Your task to perform on an android device: open app "Grab" Image 0: 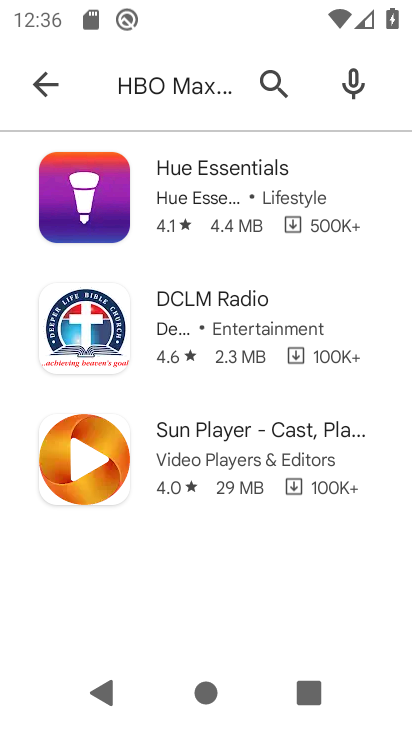
Step 0: click (157, 81)
Your task to perform on an android device: open app "Grab" Image 1: 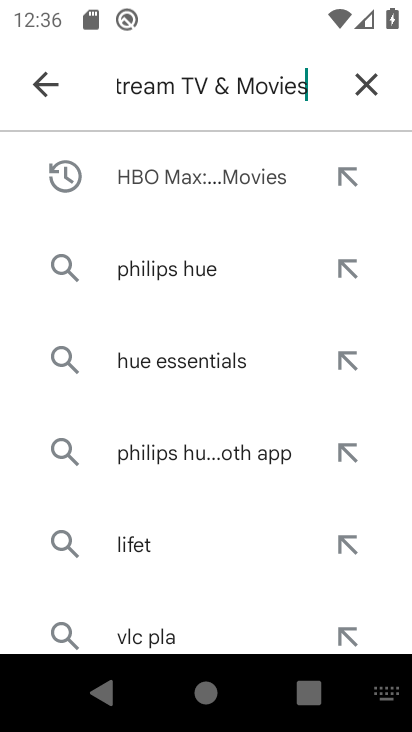
Step 1: click (368, 93)
Your task to perform on an android device: open app "Grab" Image 2: 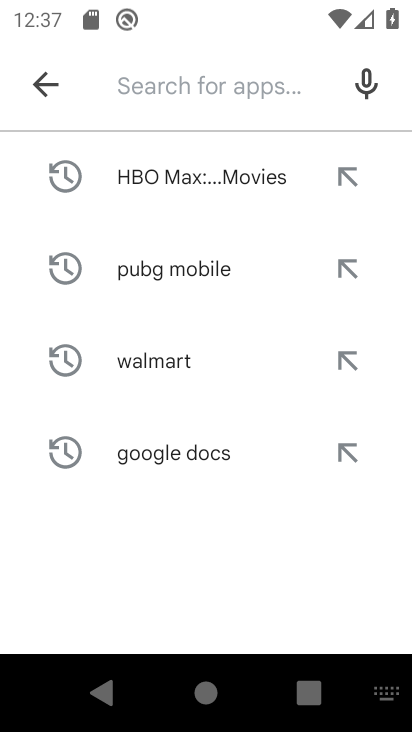
Step 2: type "grab"
Your task to perform on an android device: open app "Grab" Image 3: 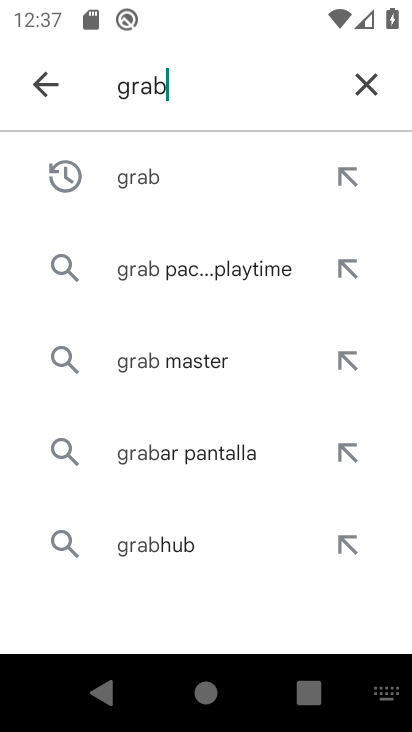
Step 3: click (147, 177)
Your task to perform on an android device: open app "Grab" Image 4: 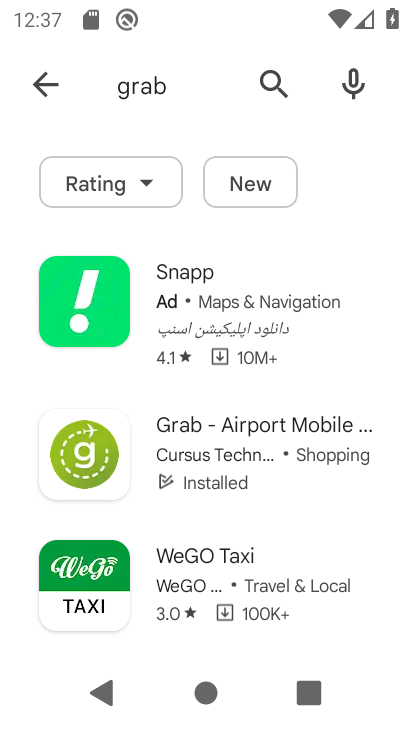
Step 4: click (215, 439)
Your task to perform on an android device: open app "Grab" Image 5: 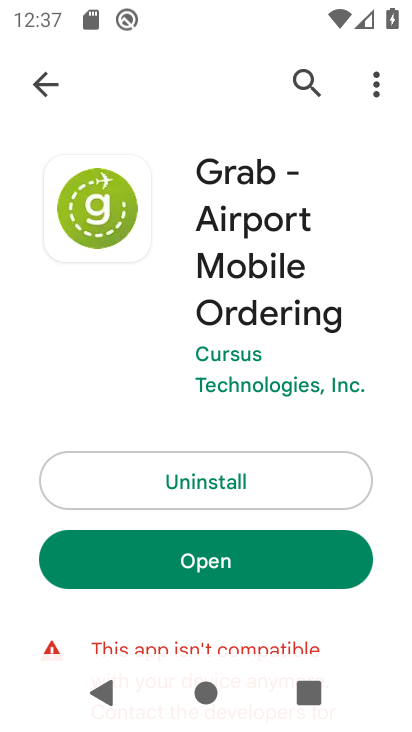
Step 5: click (264, 562)
Your task to perform on an android device: open app "Grab" Image 6: 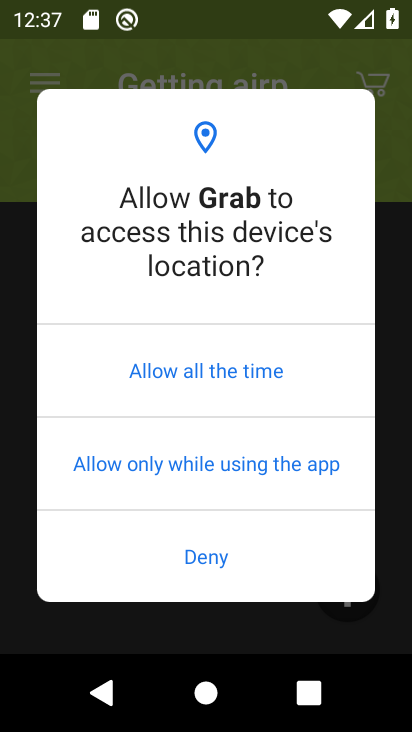
Step 6: click (240, 373)
Your task to perform on an android device: open app "Grab" Image 7: 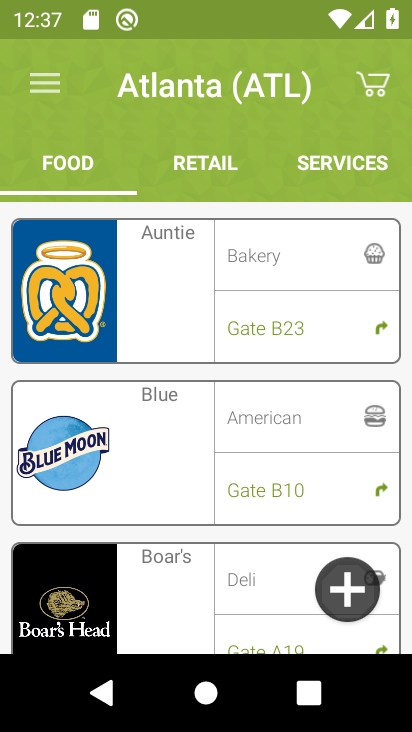
Step 7: task complete